Your task to perform on an android device: turn on javascript in the chrome app Image 0: 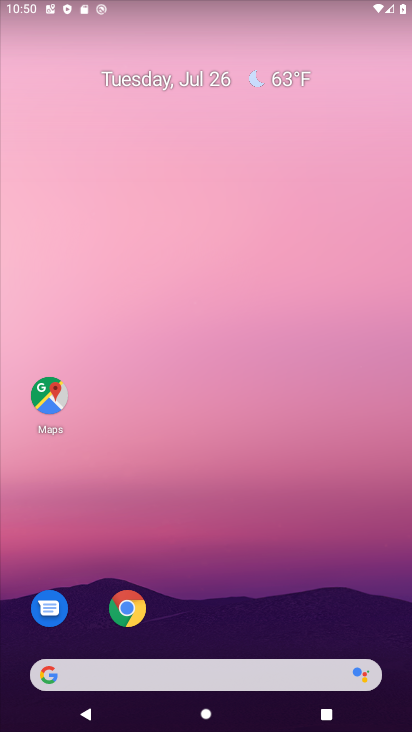
Step 0: press home button
Your task to perform on an android device: turn on javascript in the chrome app Image 1: 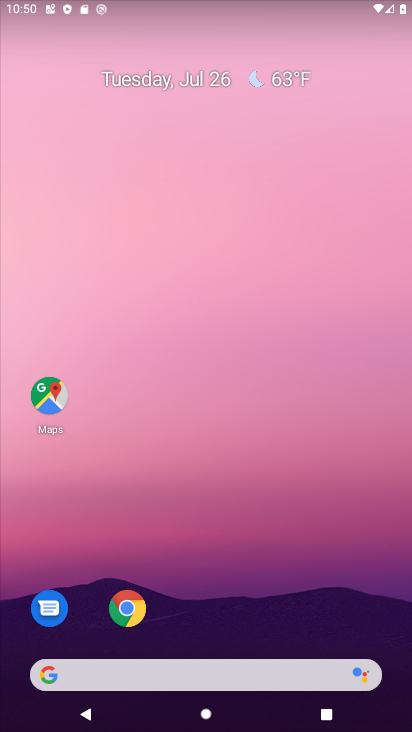
Step 1: click (132, 602)
Your task to perform on an android device: turn on javascript in the chrome app Image 2: 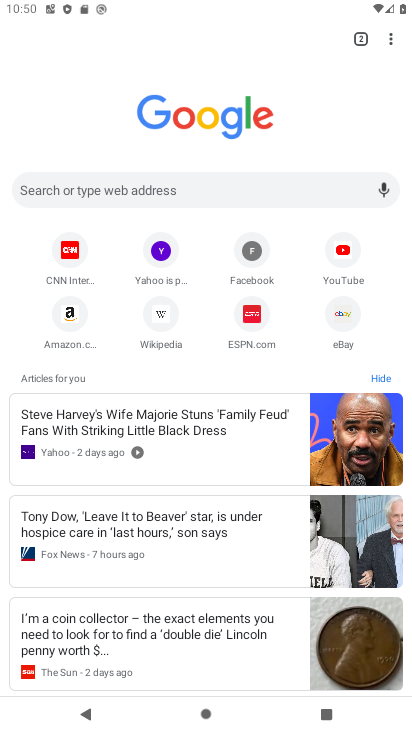
Step 2: drag from (391, 35) to (256, 319)
Your task to perform on an android device: turn on javascript in the chrome app Image 3: 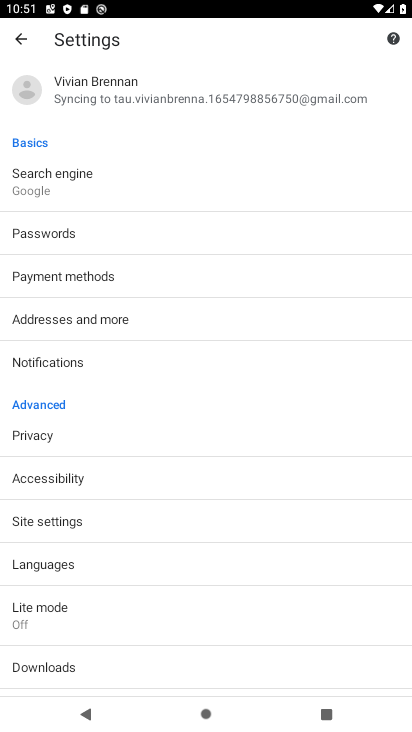
Step 3: click (41, 518)
Your task to perform on an android device: turn on javascript in the chrome app Image 4: 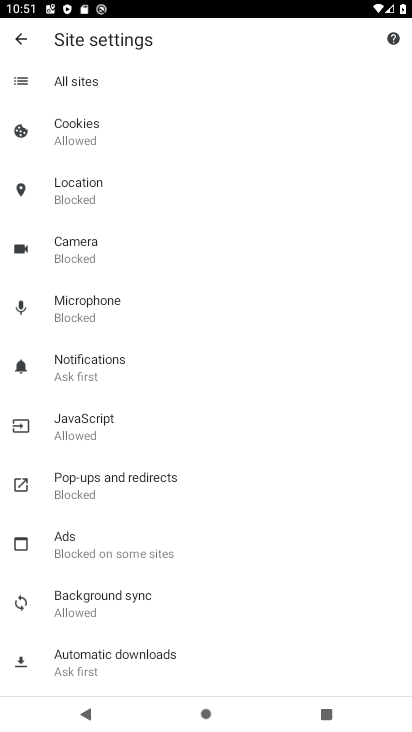
Step 4: click (90, 416)
Your task to perform on an android device: turn on javascript in the chrome app Image 5: 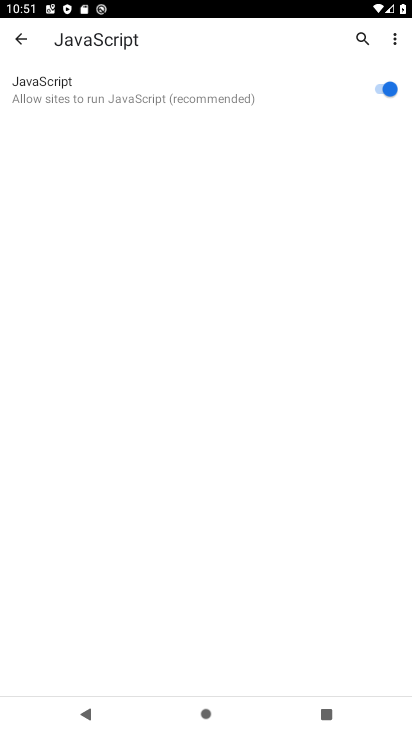
Step 5: task complete